Your task to perform on an android device: toggle notifications settings in the gmail app Image 0: 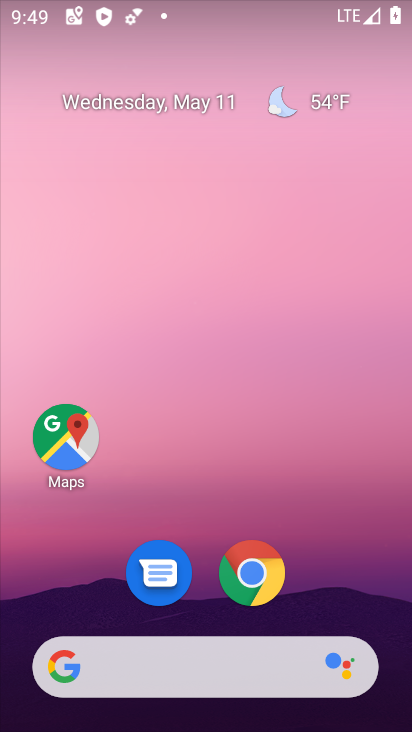
Step 0: drag from (341, 639) to (339, 64)
Your task to perform on an android device: toggle notifications settings in the gmail app Image 1: 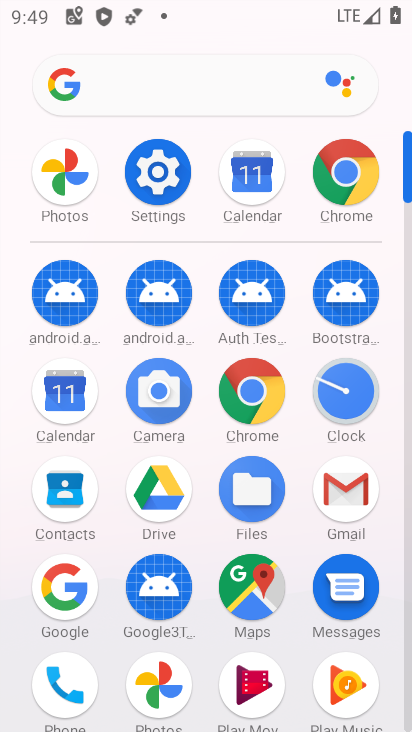
Step 1: click (350, 483)
Your task to perform on an android device: toggle notifications settings in the gmail app Image 2: 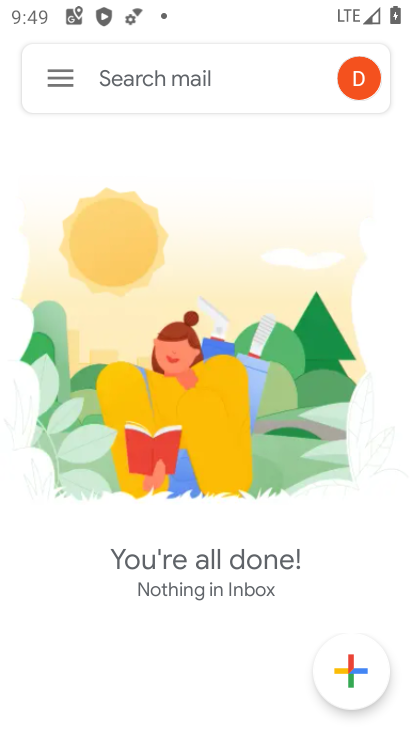
Step 2: click (39, 82)
Your task to perform on an android device: toggle notifications settings in the gmail app Image 3: 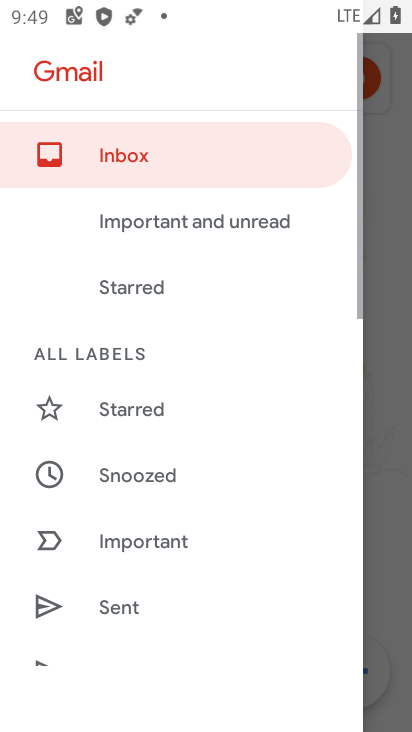
Step 3: drag from (174, 652) to (154, 176)
Your task to perform on an android device: toggle notifications settings in the gmail app Image 4: 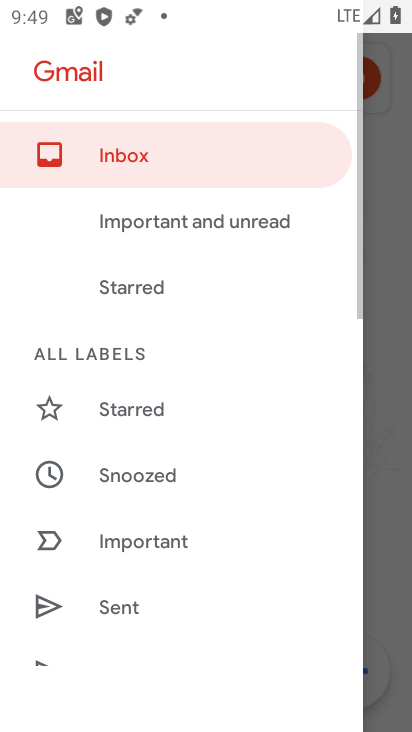
Step 4: drag from (253, 533) to (264, 264)
Your task to perform on an android device: toggle notifications settings in the gmail app Image 5: 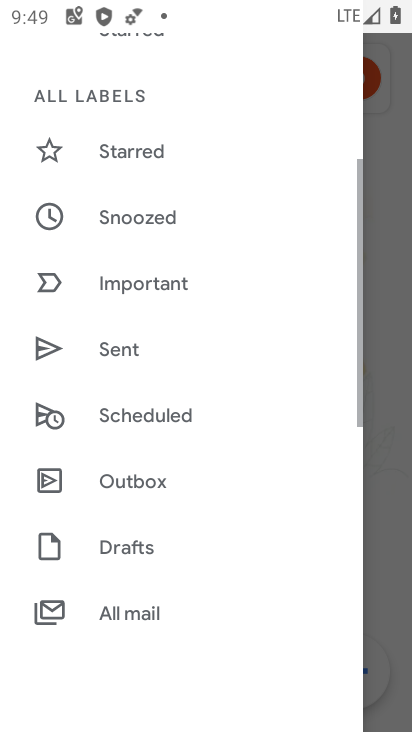
Step 5: drag from (234, 607) to (200, 166)
Your task to perform on an android device: toggle notifications settings in the gmail app Image 6: 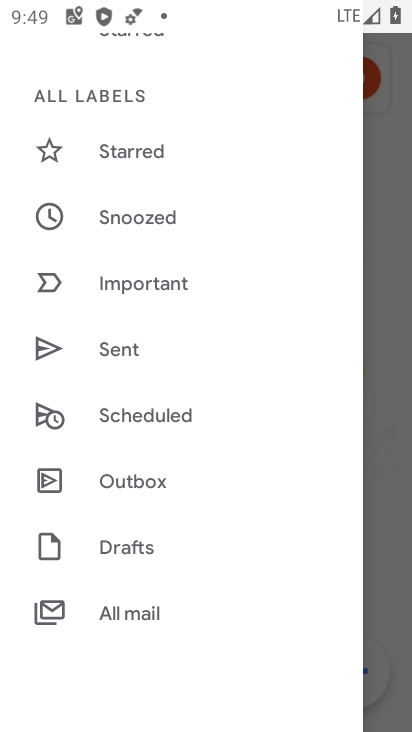
Step 6: drag from (155, 611) to (147, 150)
Your task to perform on an android device: toggle notifications settings in the gmail app Image 7: 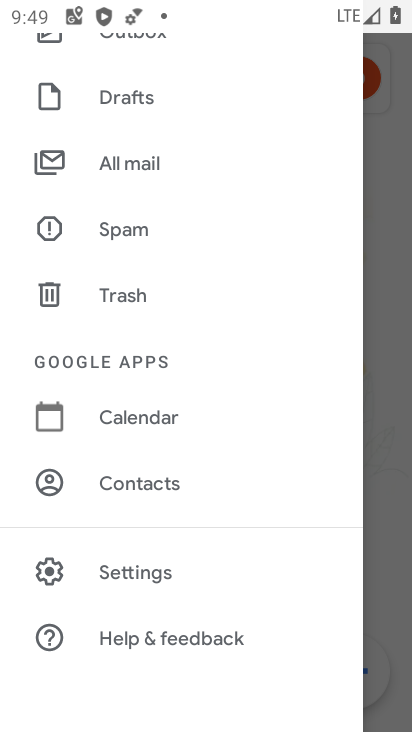
Step 7: click (169, 580)
Your task to perform on an android device: toggle notifications settings in the gmail app Image 8: 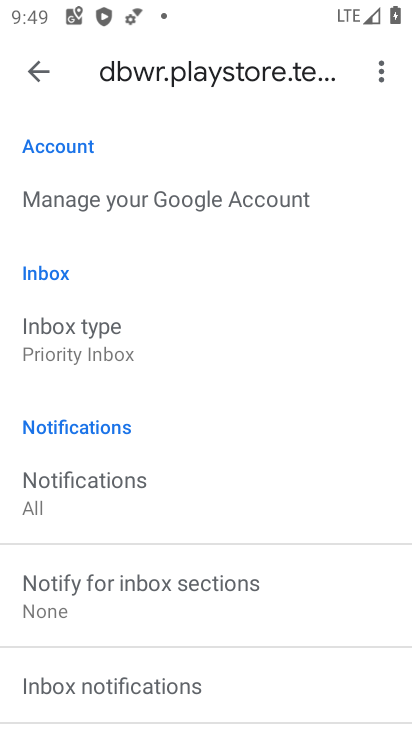
Step 8: drag from (146, 624) to (175, 296)
Your task to perform on an android device: toggle notifications settings in the gmail app Image 9: 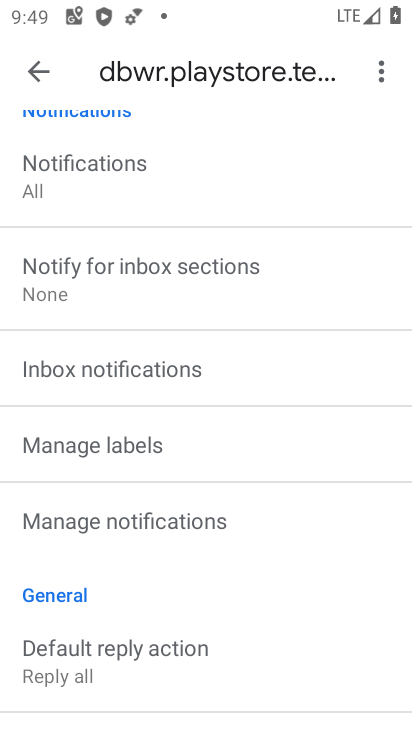
Step 9: click (169, 519)
Your task to perform on an android device: toggle notifications settings in the gmail app Image 10: 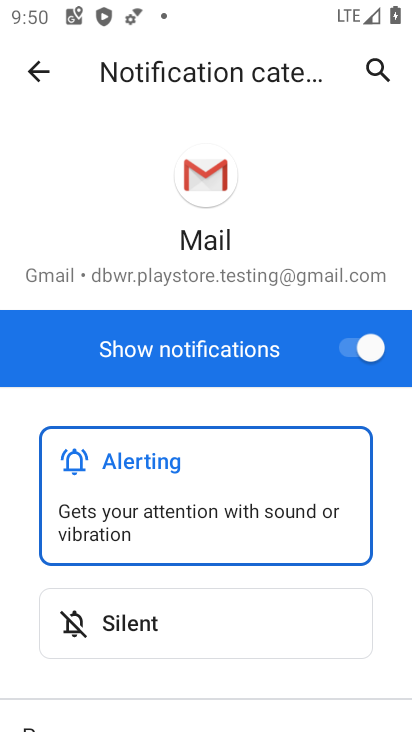
Step 10: drag from (216, 630) to (251, 253)
Your task to perform on an android device: toggle notifications settings in the gmail app Image 11: 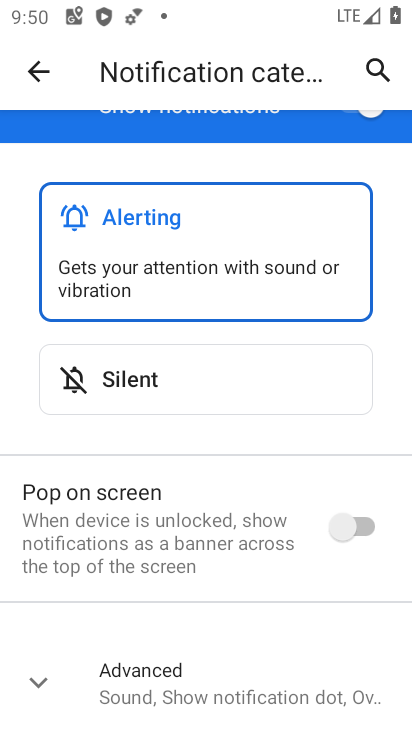
Step 11: click (261, 684)
Your task to perform on an android device: toggle notifications settings in the gmail app Image 12: 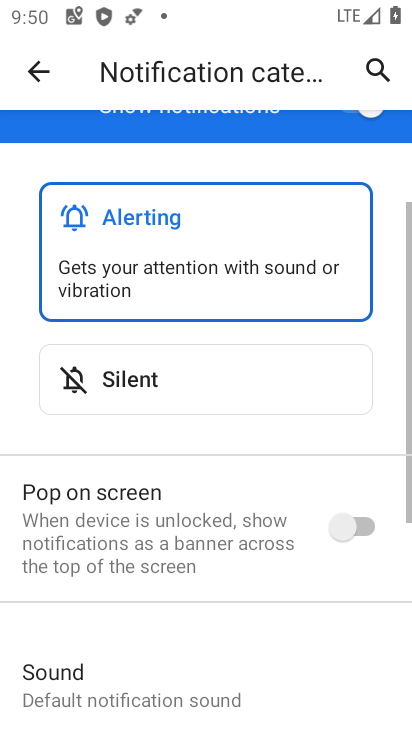
Step 12: drag from (261, 684) to (267, 420)
Your task to perform on an android device: toggle notifications settings in the gmail app Image 13: 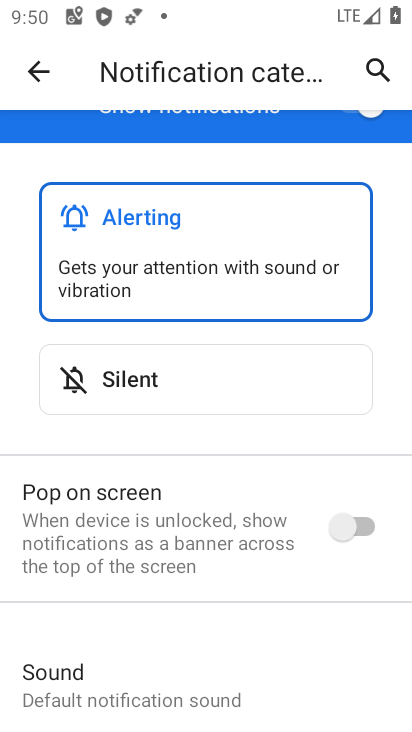
Step 13: drag from (284, 666) to (259, 308)
Your task to perform on an android device: toggle notifications settings in the gmail app Image 14: 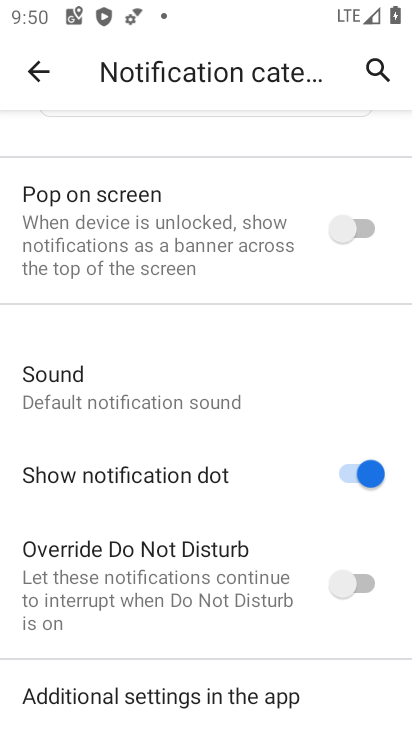
Step 14: drag from (256, 211) to (231, 643)
Your task to perform on an android device: toggle notifications settings in the gmail app Image 15: 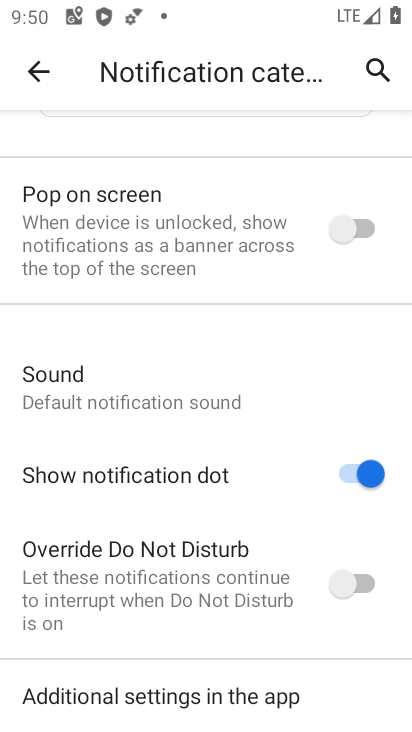
Step 15: drag from (238, 209) to (256, 725)
Your task to perform on an android device: toggle notifications settings in the gmail app Image 16: 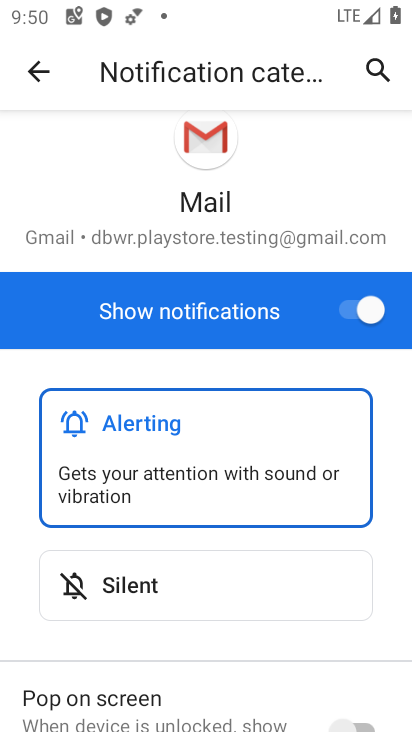
Step 16: click (349, 308)
Your task to perform on an android device: toggle notifications settings in the gmail app Image 17: 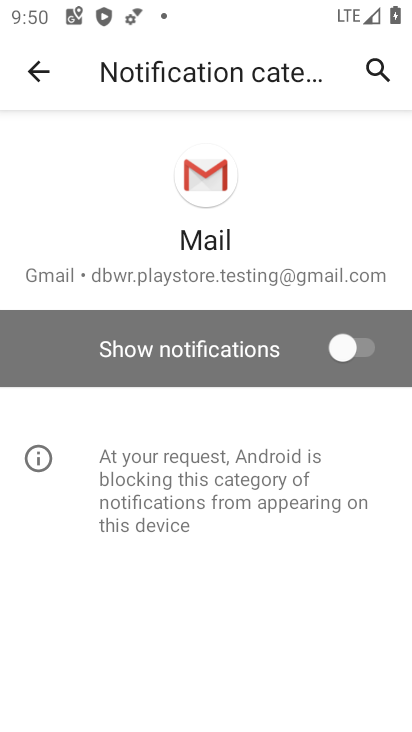
Step 17: task complete